Your task to perform on an android device: Go to Google maps Image 0: 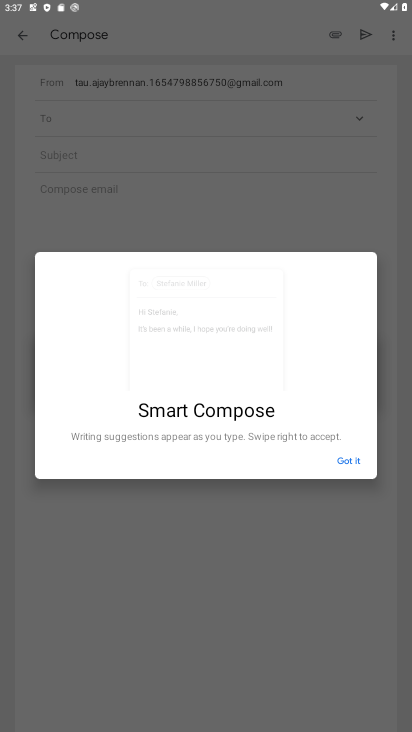
Step 0: press home button
Your task to perform on an android device: Go to Google maps Image 1: 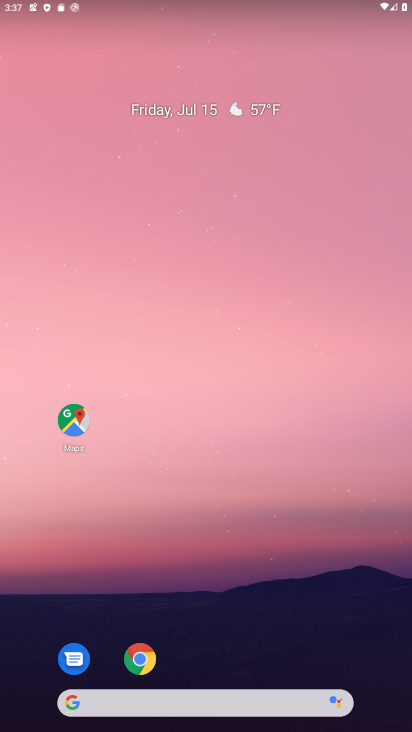
Step 1: drag from (148, 676) to (236, 208)
Your task to perform on an android device: Go to Google maps Image 2: 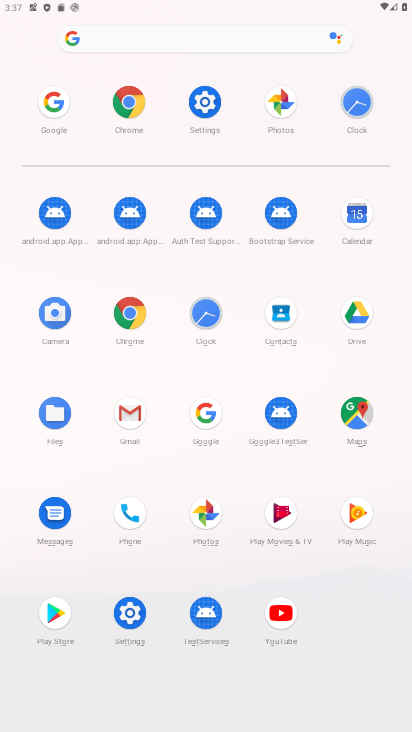
Step 2: click (354, 407)
Your task to perform on an android device: Go to Google maps Image 3: 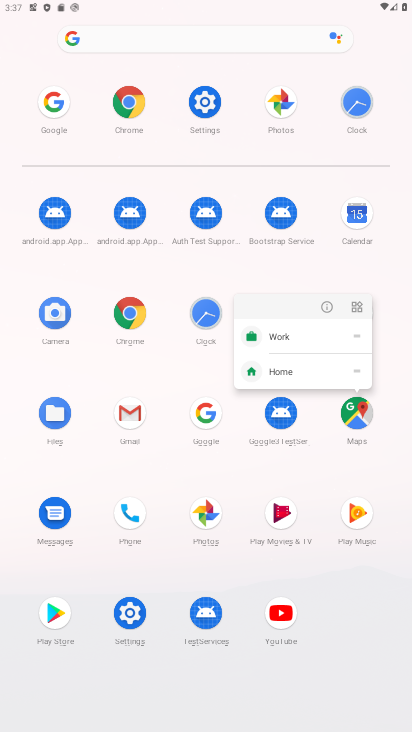
Step 3: click (363, 423)
Your task to perform on an android device: Go to Google maps Image 4: 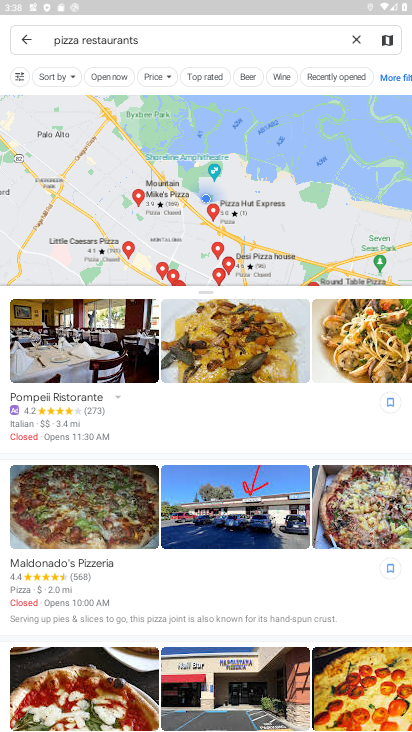
Step 4: task complete